Your task to perform on an android device: change the clock style Image 0: 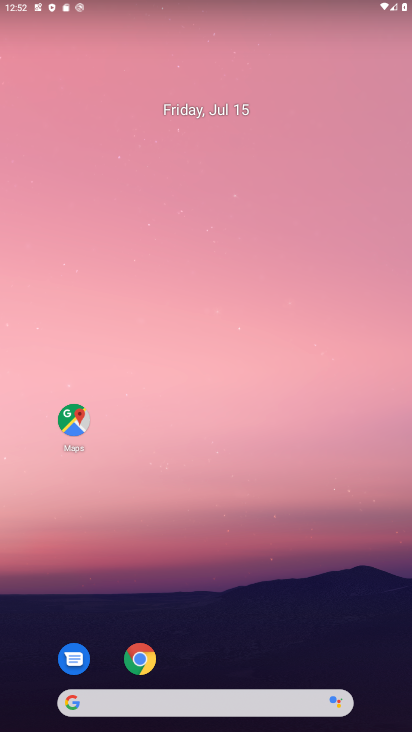
Step 0: drag from (233, 652) to (245, 209)
Your task to perform on an android device: change the clock style Image 1: 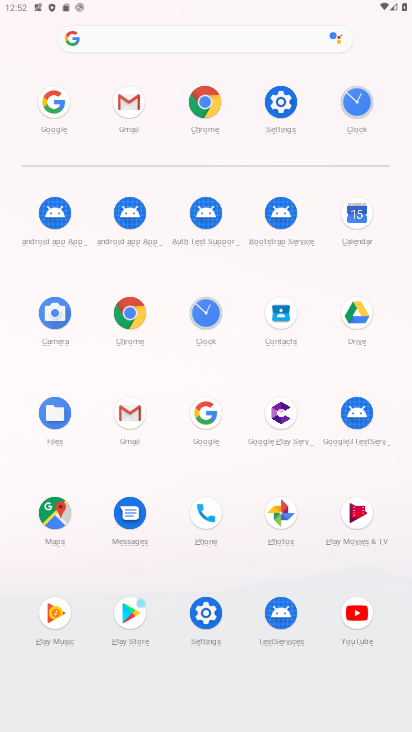
Step 1: click (339, 106)
Your task to perform on an android device: change the clock style Image 2: 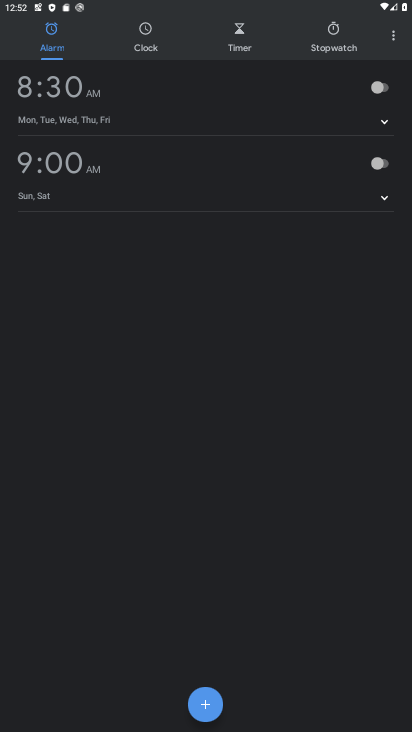
Step 2: click (389, 39)
Your task to perform on an android device: change the clock style Image 3: 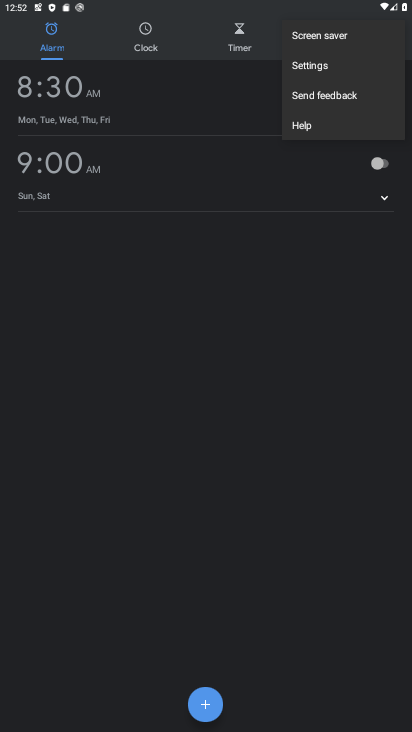
Step 3: click (343, 67)
Your task to perform on an android device: change the clock style Image 4: 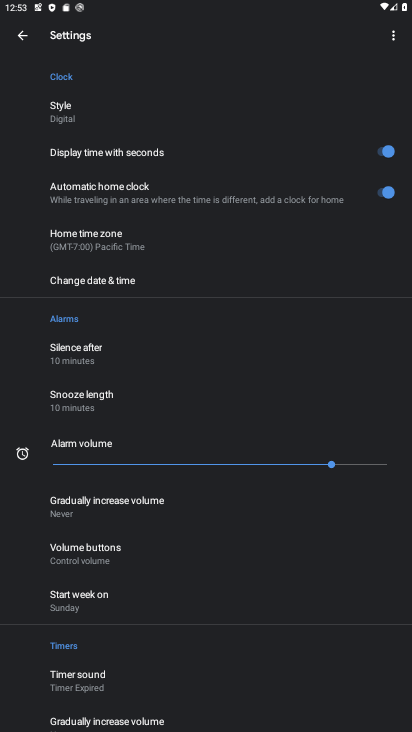
Step 4: click (105, 115)
Your task to perform on an android device: change the clock style Image 5: 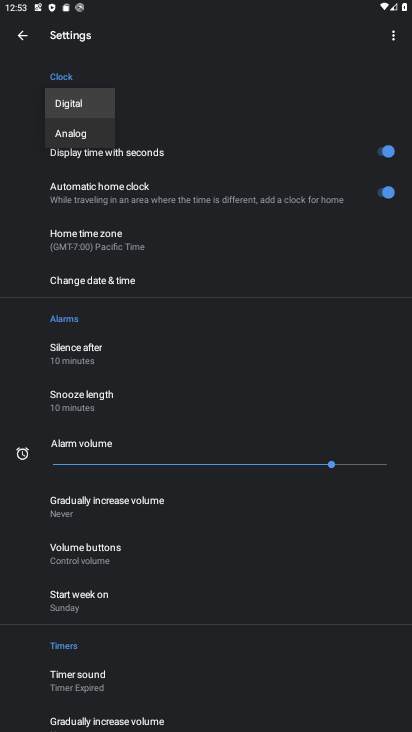
Step 5: click (93, 129)
Your task to perform on an android device: change the clock style Image 6: 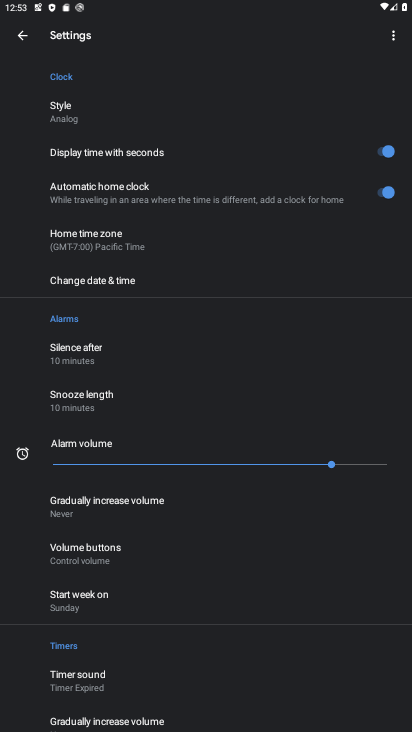
Step 6: task complete